Your task to perform on an android device: see tabs open on other devices in the chrome app Image 0: 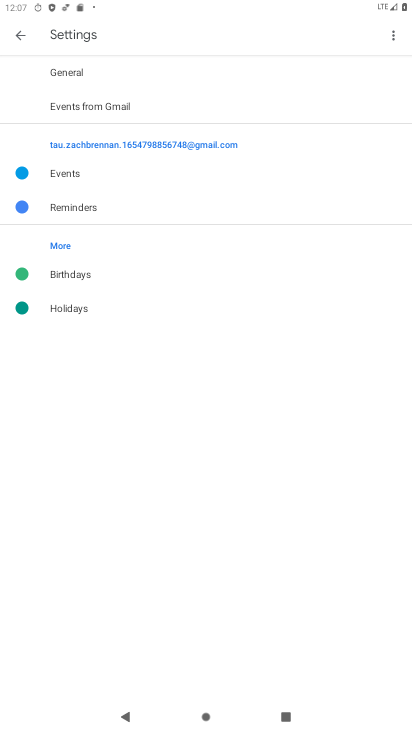
Step 0: press home button
Your task to perform on an android device: see tabs open on other devices in the chrome app Image 1: 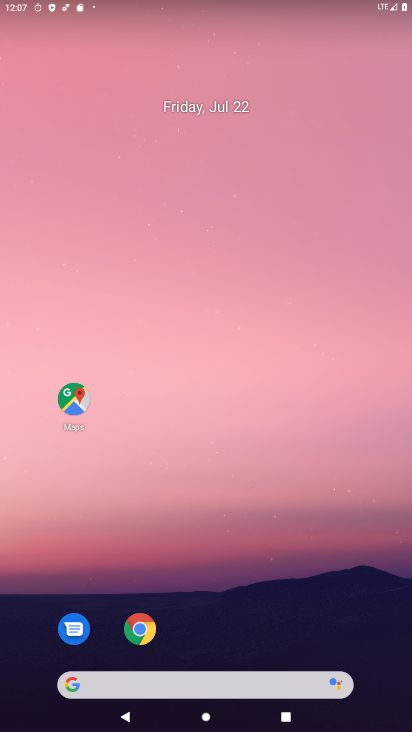
Step 1: drag from (351, 598) to (346, 103)
Your task to perform on an android device: see tabs open on other devices in the chrome app Image 2: 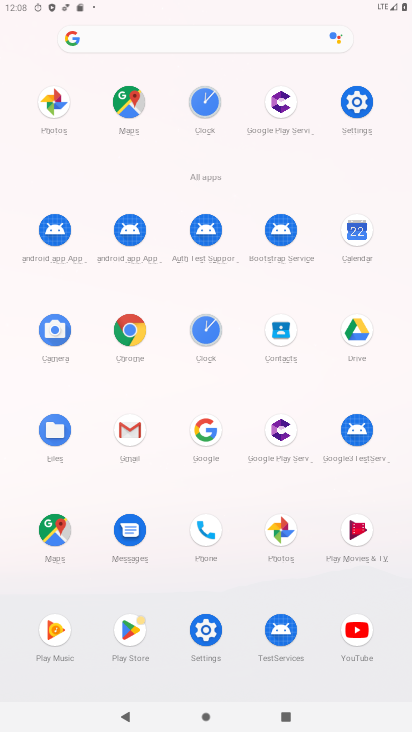
Step 2: click (136, 334)
Your task to perform on an android device: see tabs open on other devices in the chrome app Image 3: 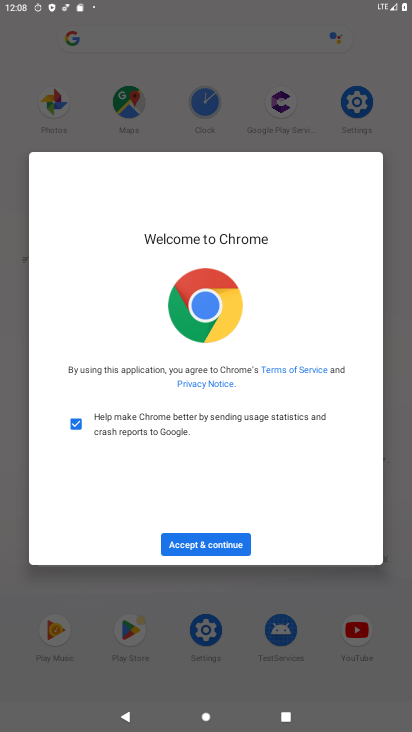
Step 3: click (192, 548)
Your task to perform on an android device: see tabs open on other devices in the chrome app Image 4: 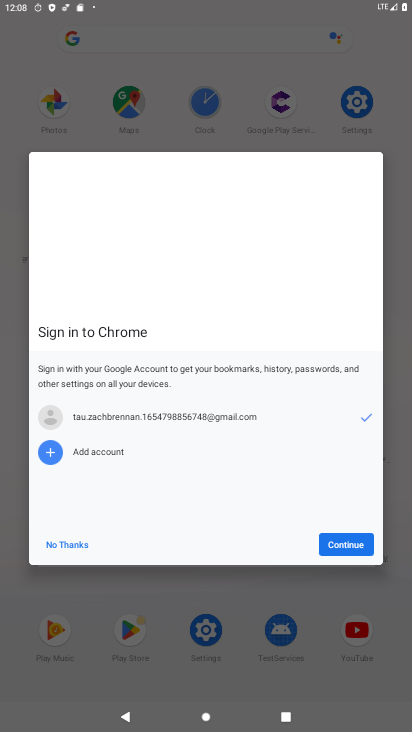
Step 4: click (345, 548)
Your task to perform on an android device: see tabs open on other devices in the chrome app Image 5: 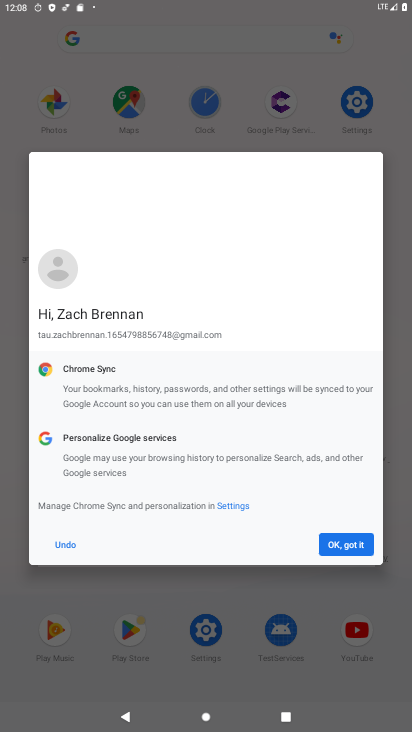
Step 5: click (345, 548)
Your task to perform on an android device: see tabs open on other devices in the chrome app Image 6: 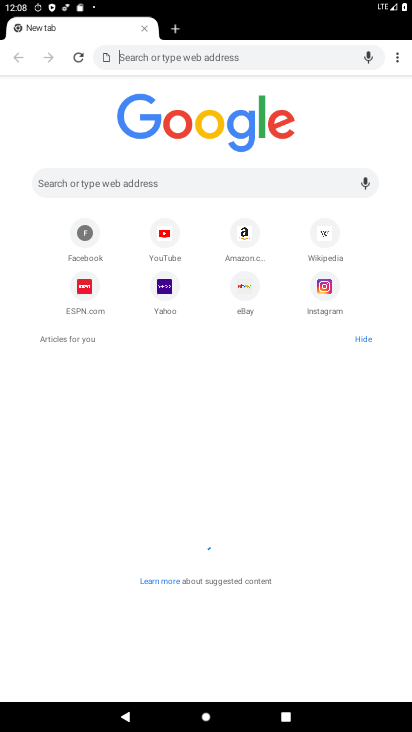
Step 6: click (345, 548)
Your task to perform on an android device: see tabs open on other devices in the chrome app Image 7: 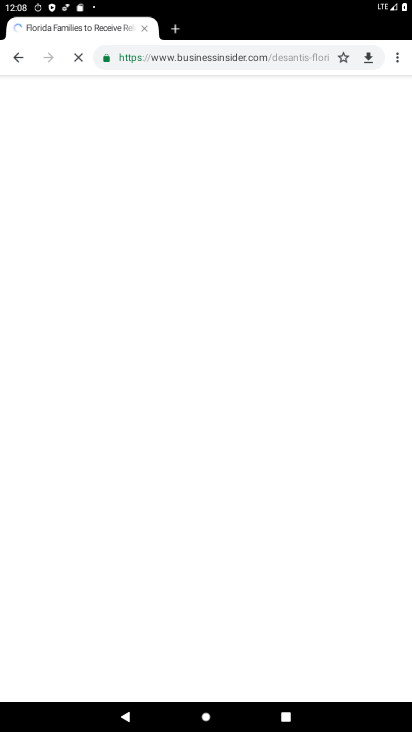
Step 7: click (400, 59)
Your task to perform on an android device: see tabs open on other devices in the chrome app Image 8: 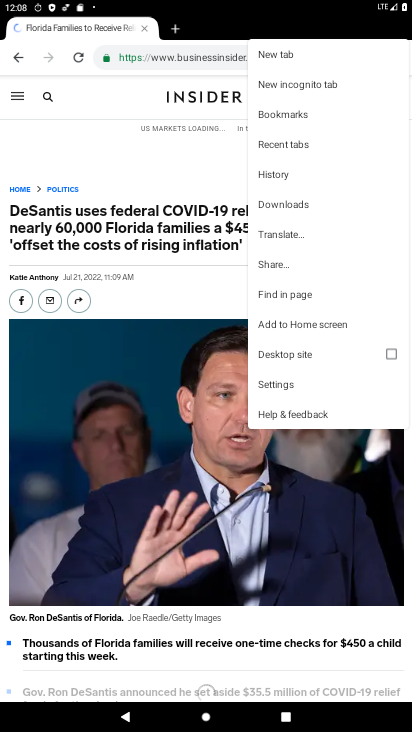
Step 8: click (307, 143)
Your task to perform on an android device: see tabs open on other devices in the chrome app Image 9: 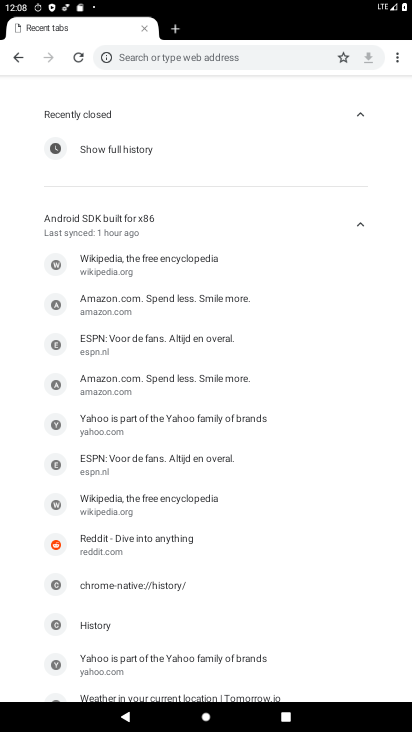
Step 9: task complete